Your task to perform on an android device: Go to Google maps Image 0: 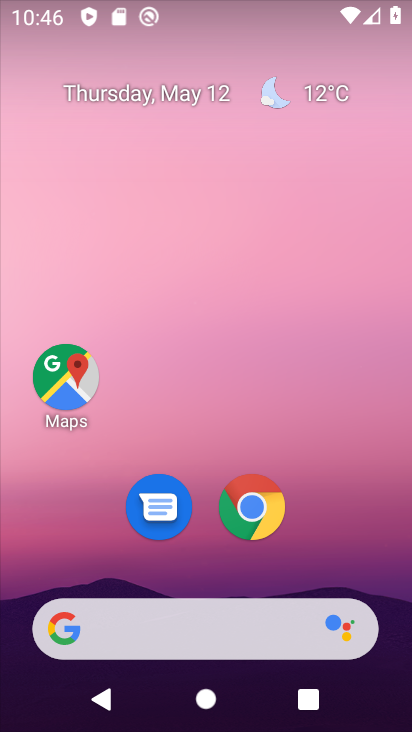
Step 0: click (67, 376)
Your task to perform on an android device: Go to Google maps Image 1: 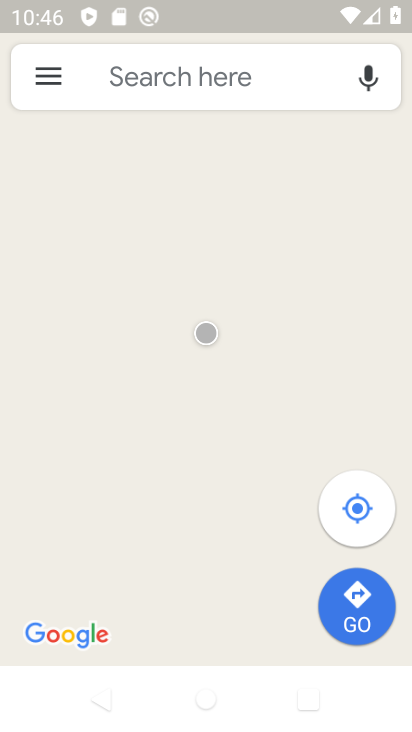
Step 1: task complete